Your task to perform on an android device: open wifi settings Image 0: 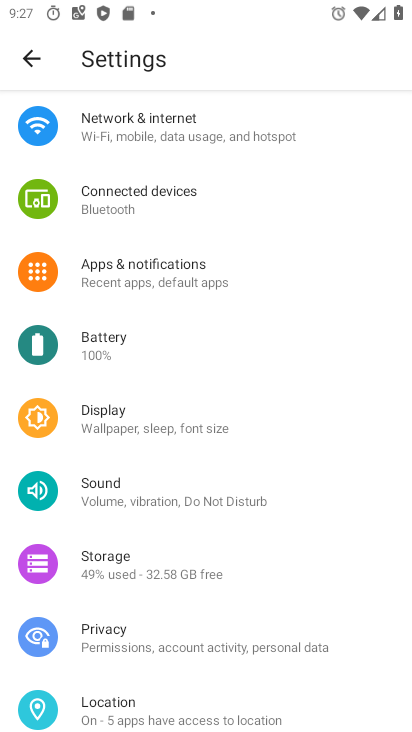
Step 0: press home button
Your task to perform on an android device: open wifi settings Image 1: 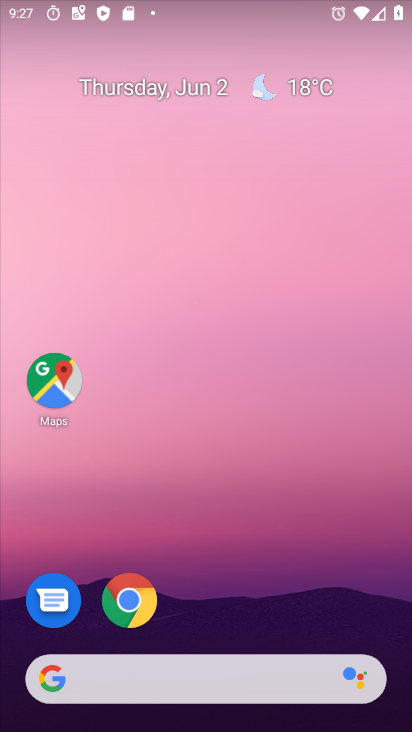
Step 1: drag from (353, 594) to (364, 244)
Your task to perform on an android device: open wifi settings Image 2: 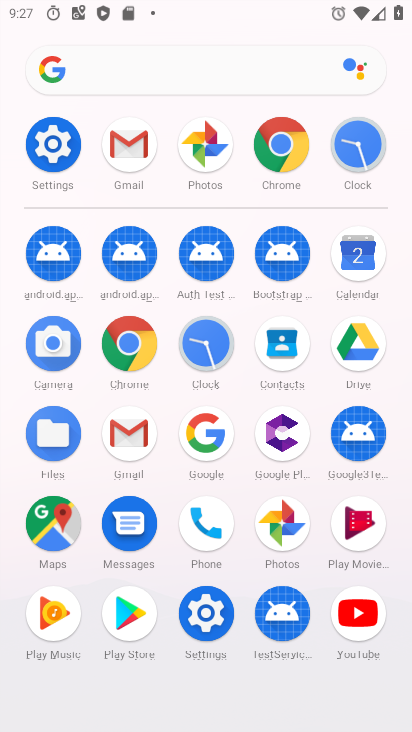
Step 2: click (209, 612)
Your task to perform on an android device: open wifi settings Image 3: 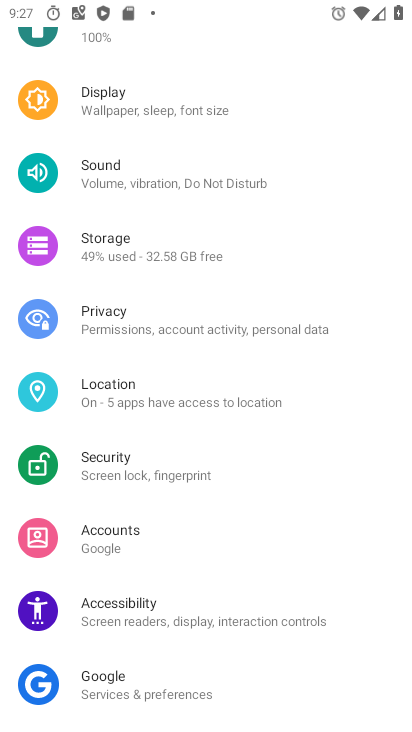
Step 3: drag from (335, 372) to (346, 466)
Your task to perform on an android device: open wifi settings Image 4: 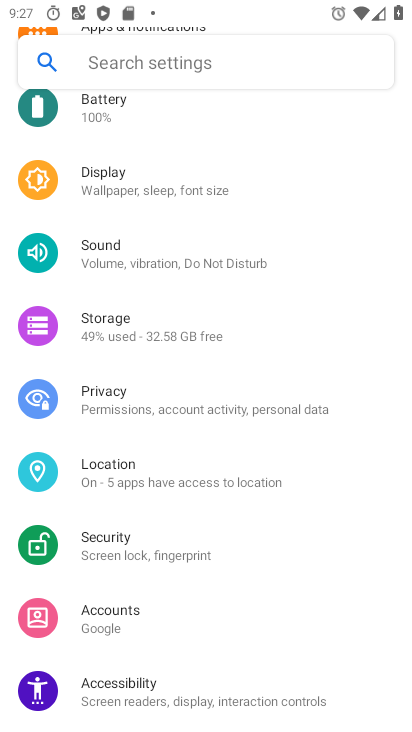
Step 4: drag from (360, 328) to (370, 447)
Your task to perform on an android device: open wifi settings Image 5: 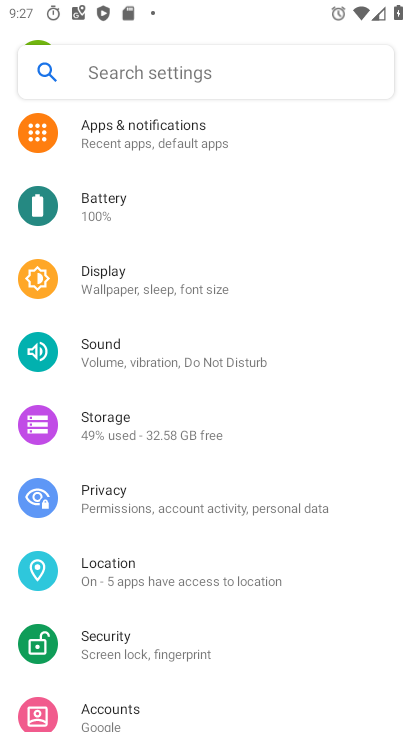
Step 5: drag from (352, 260) to (359, 400)
Your task to perform on an android device: open wifi settings Image 6: 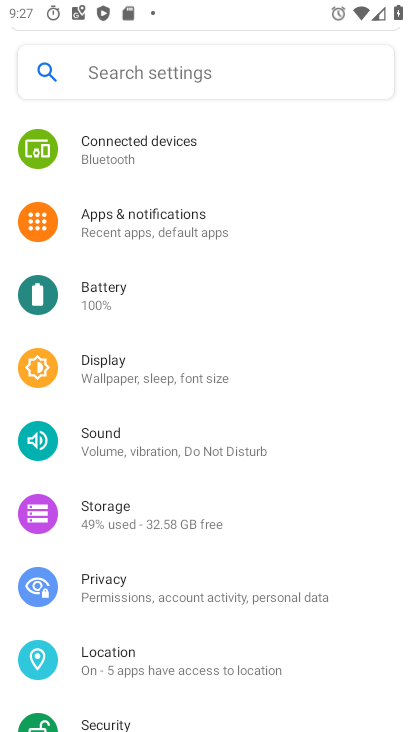
Step 6: drag from (347, 247) to (341, 405)
Your task to perform on an android device: open wifi settings Image 7: 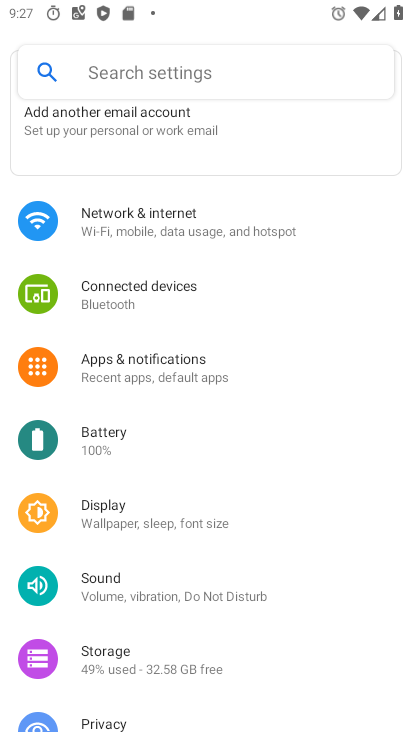
Step 7: drag from (346, 225) to (334, 403)
Your task to perform on an android device: open wifi settings Image 8: 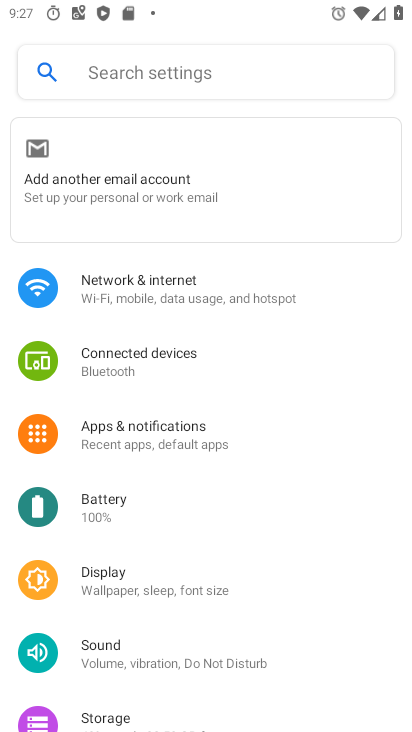
Step 8: click (246, 292)
Your task to perform on an android device: open wifi settings Image 9: 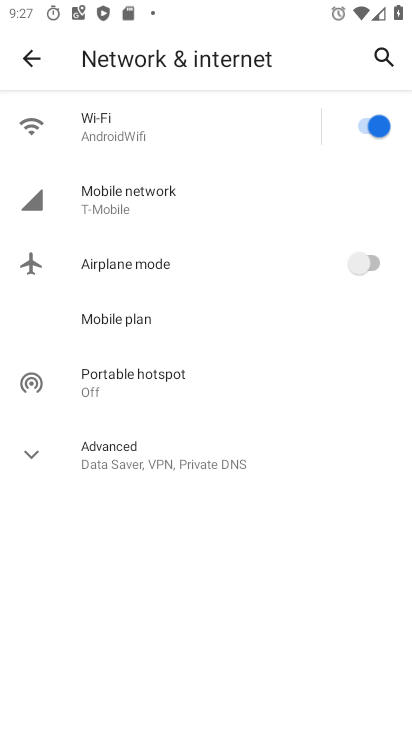
Step 9: click (154, 140)
Your task to perform on an android device: open wifi settings Image 10: 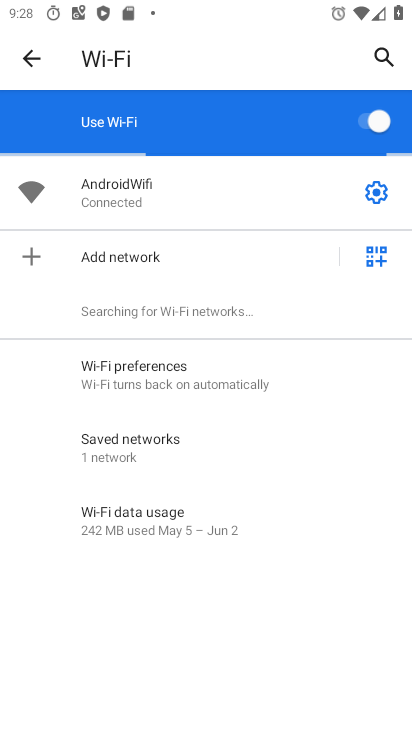
Step 10: task complete